Your task to perform on an android device: Open accessibility settings Image 0: 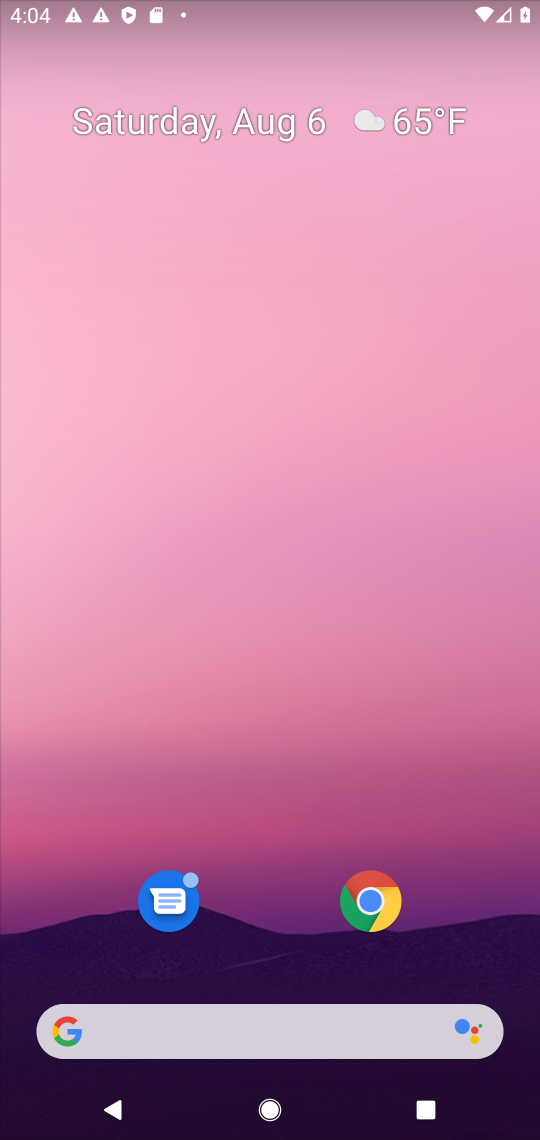
Step 0: press home button
Your task to perform on an android device: Open accessibility settings Image 1: 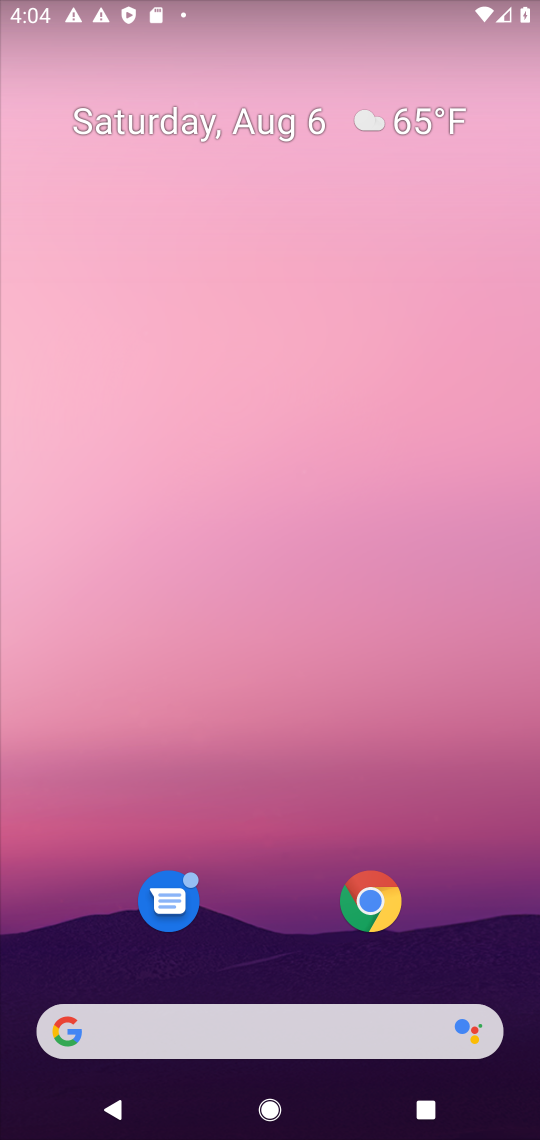
Step 1: drag from (282, 893) to (370, 14)
Your task to perform on an android device: Open accessibility settings Image 2: 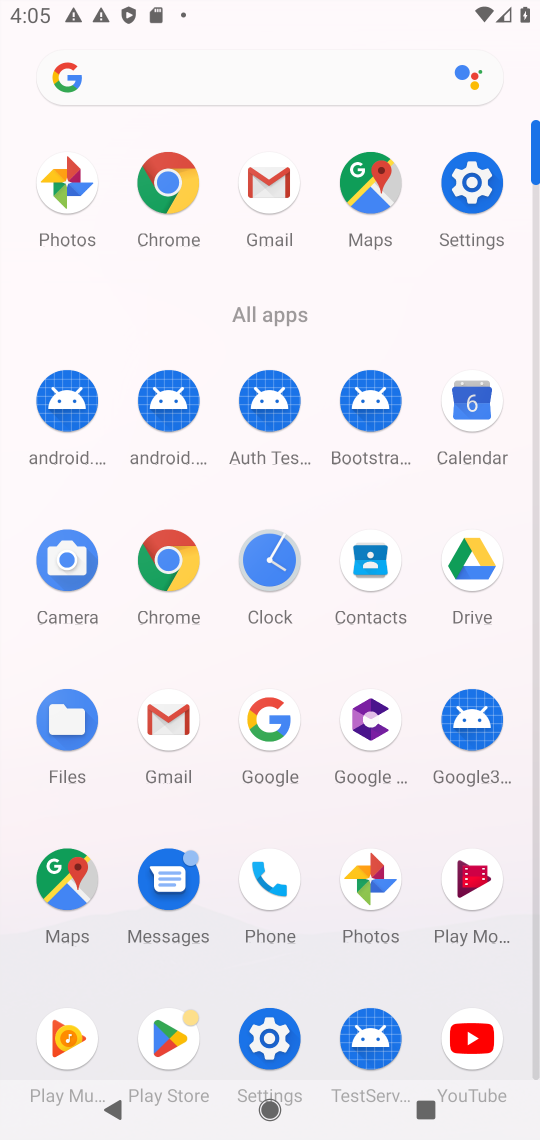
Step 2: click (269, 1048)
Your task to perform on an android device: Open accessibility settings Image 3: 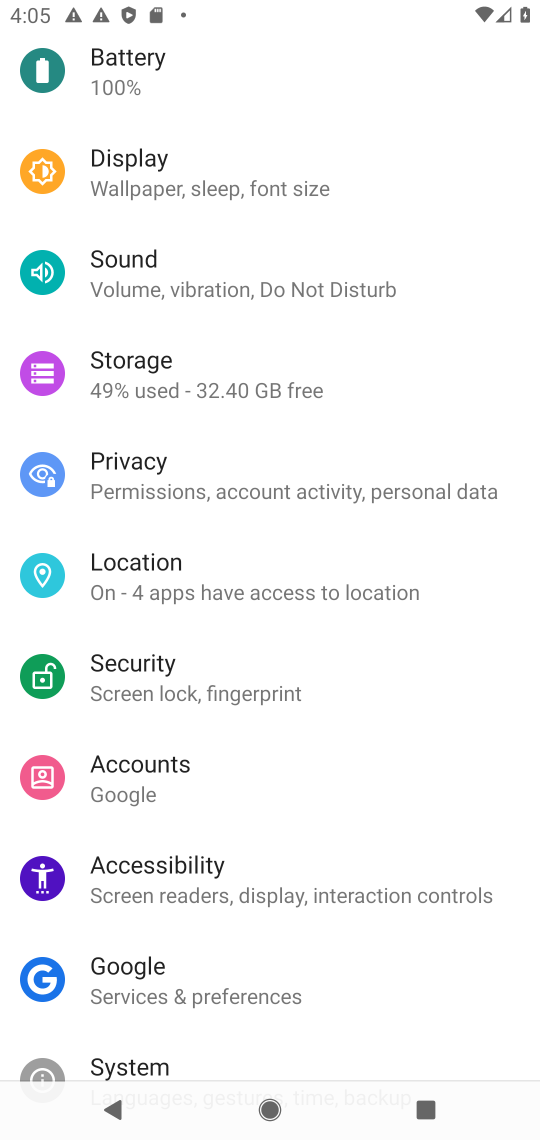
Step 3: click (173, 905)
Your task to perform on an android device: Open accessibility settings Image 4: 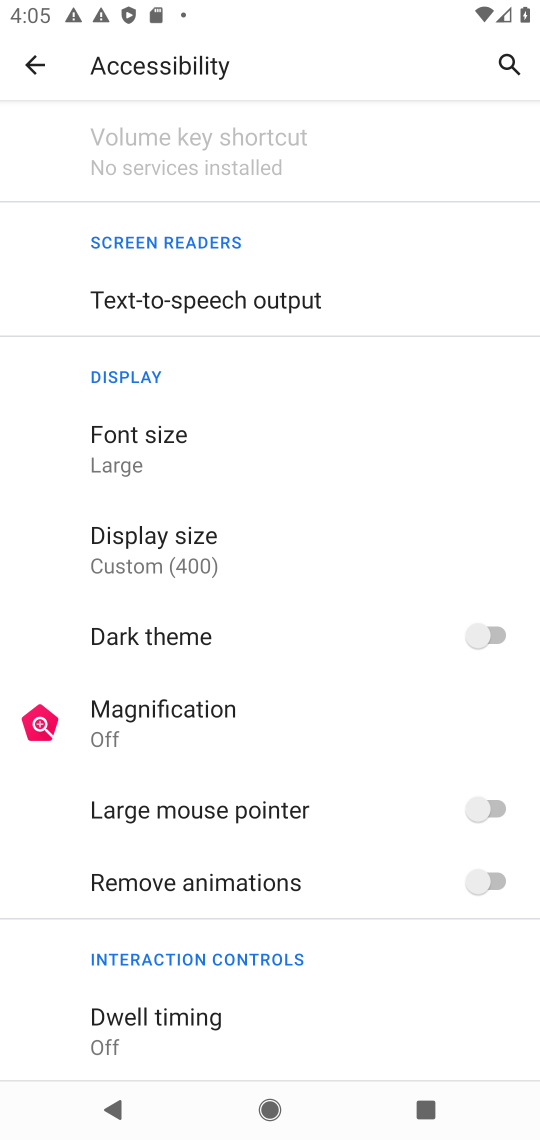
Step 4: task complete